Your task to perform on an android device: Go to battery settings Image 0: 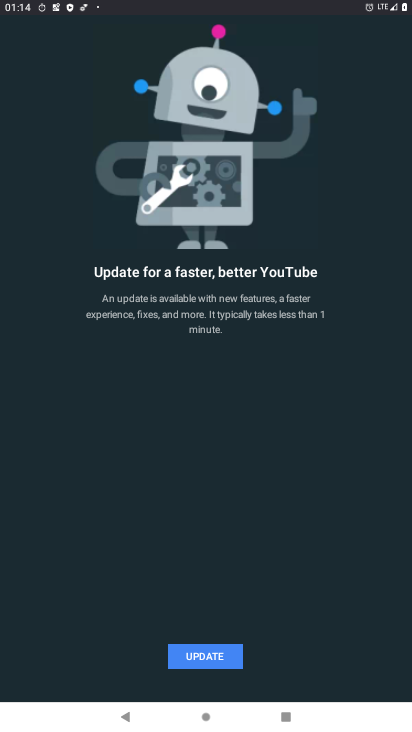
Step 0: press home button
Your task to perform on an android device: Go to battery settings Image 1: 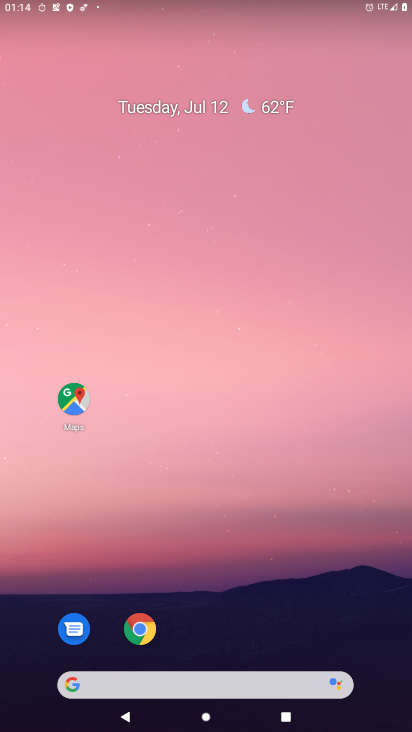
Step 1: drag from (233, 527) to (241, 4)
Your task to perform on an android device: Go to battery settings Image 2: 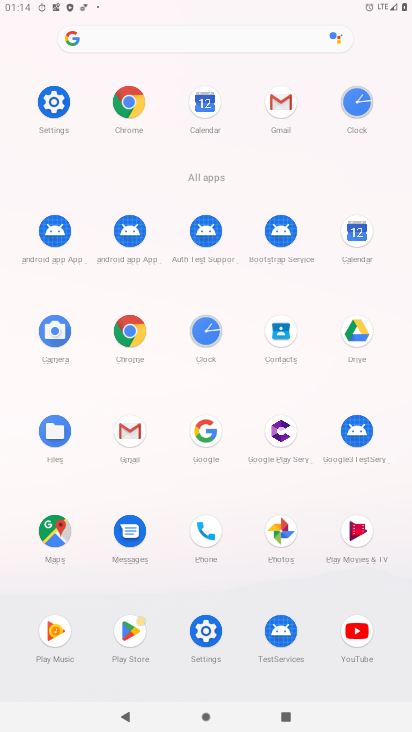
Step 2: click (209, 630)
Your task to perform on an android device: Go to battery settings Image 3: 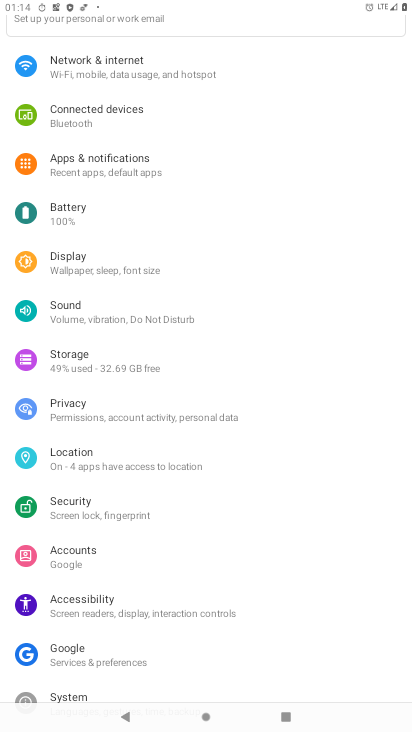
Step 3: drag from (168, 591) to (198, 177)
Your task to perform on an android device: Go to battery settings Image 4: 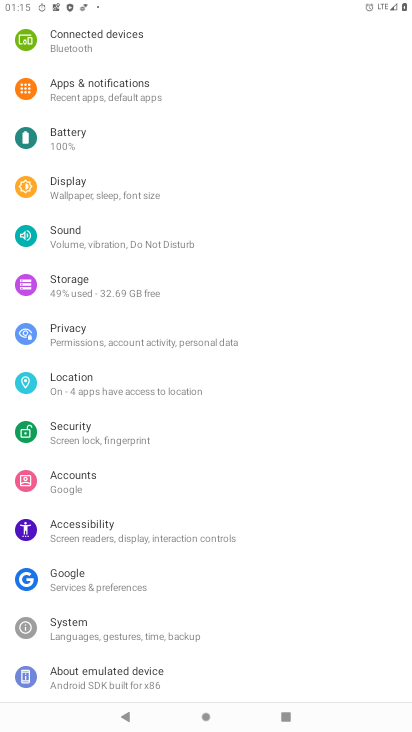
Step 4: click (63, 127)
Your task to perform on an android device: Go to battery settings Image 5: 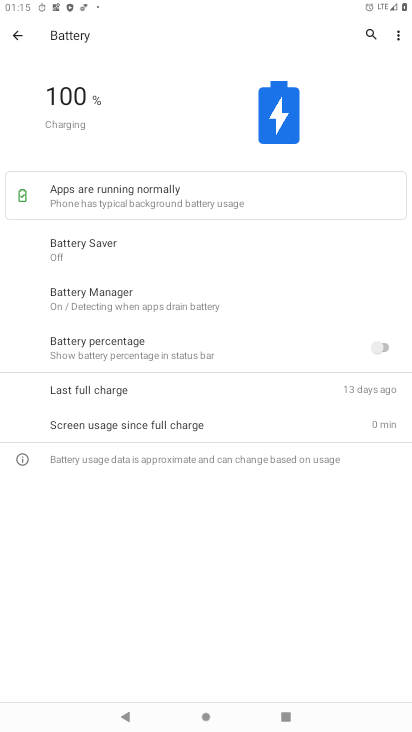
Step 5: task complete